Your task to perform on an android device: turn notification dots off Image 0: 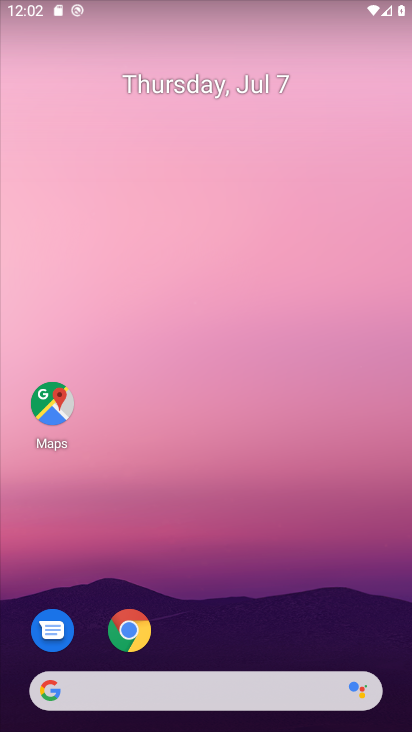
Step 0: drag from (175, 647) to (187, 307)
Your task to perform on an android device: turn notification dots off Image 1: 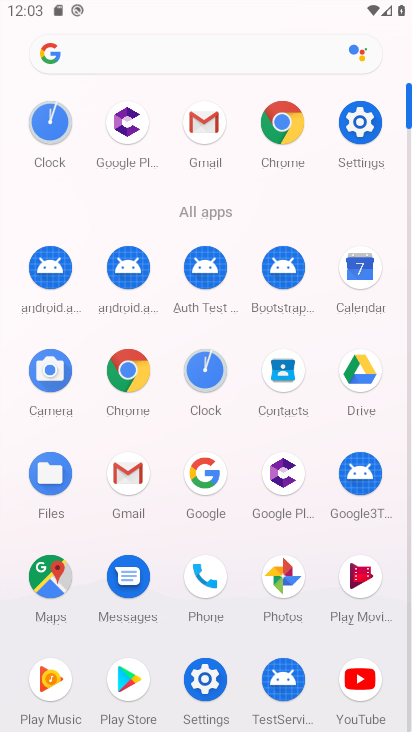
Step 1: click (349, 120)
Your task to perform on an android device: turn notification dots off Image 2: 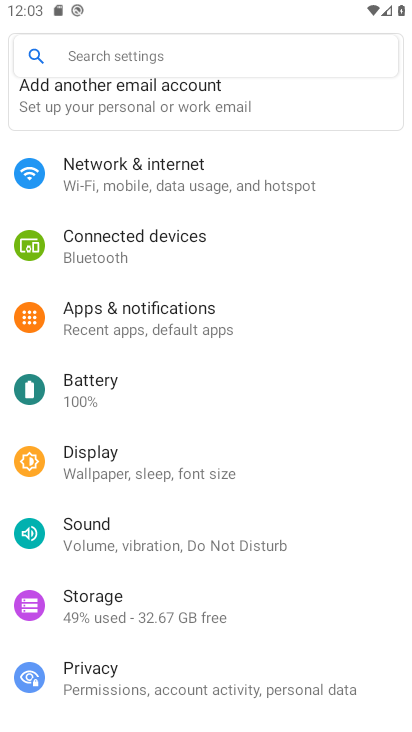
Step 2: click (191, 50)
Your task to perform on an android device: turn notification dots off Image 3: 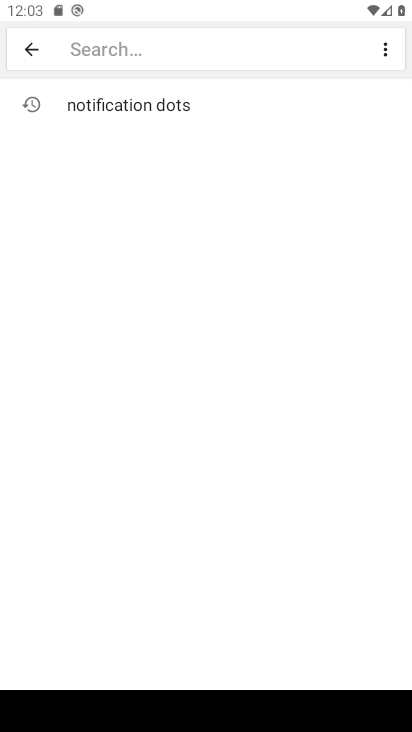
Step 3: click (133, 105)
Your task to perform on an android device: turn notification dots off Image 4: 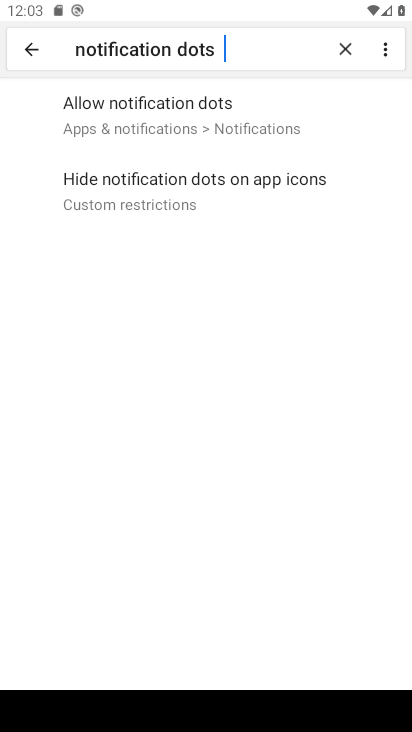
Step 4: click (154, 105)
Your task to perform on an android device: turn notification dots off Image 5: 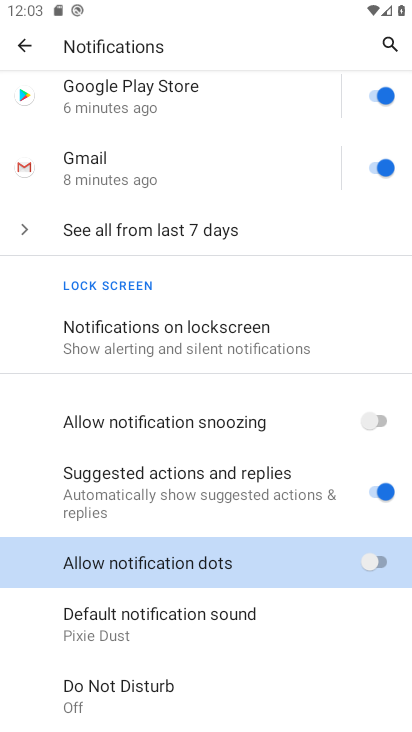
Step 5: task complete